Your task to perform on an android device: see tabs open on other devices in the chrome app Image 0: 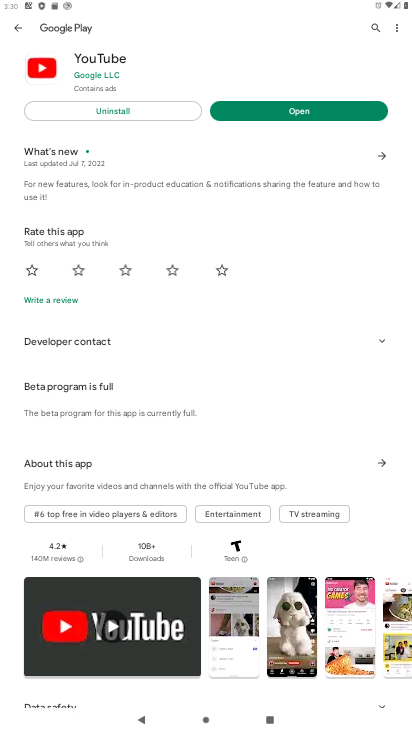
Step 0: press home button
Your task to perform on an android device: see tabs open on other devices in the chrome app Image 1: 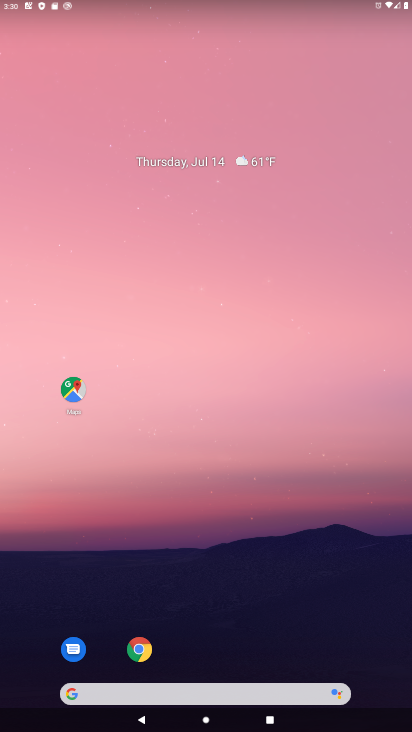
Step 1: drag from (205, 662) to (176, 129)
Your task to perform on an android device: see tabs open on other devices in the chrome app Image 2: 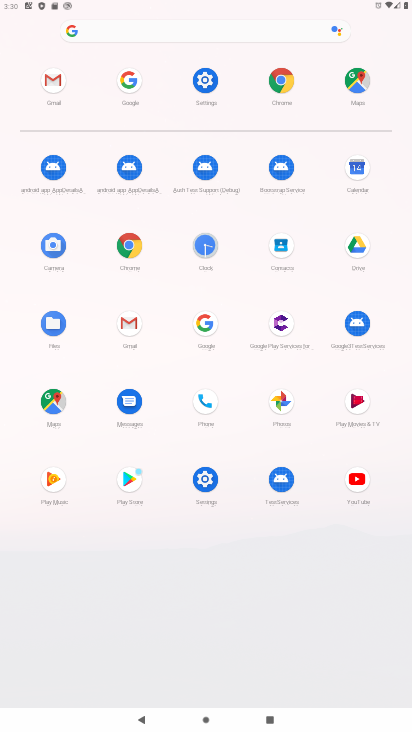
Step 2: click (123, 247)
Your task to perform on an android device: see tabs open on other devices in the chrome app Image 3: 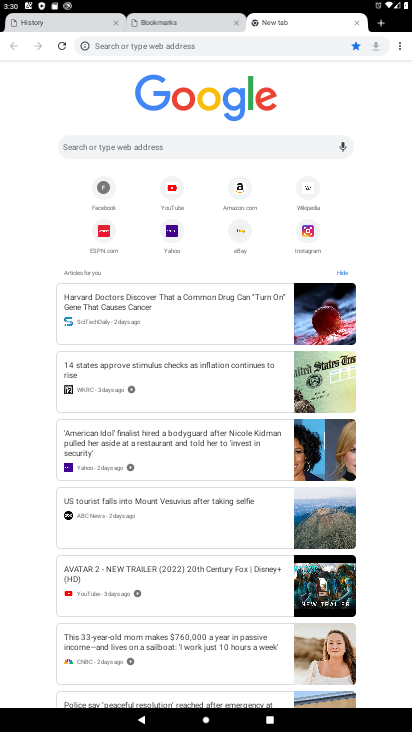
Step 3: click (383, 21)
Your task to perform on an android device: see tabs open on other devices in the chrome app Image 4: 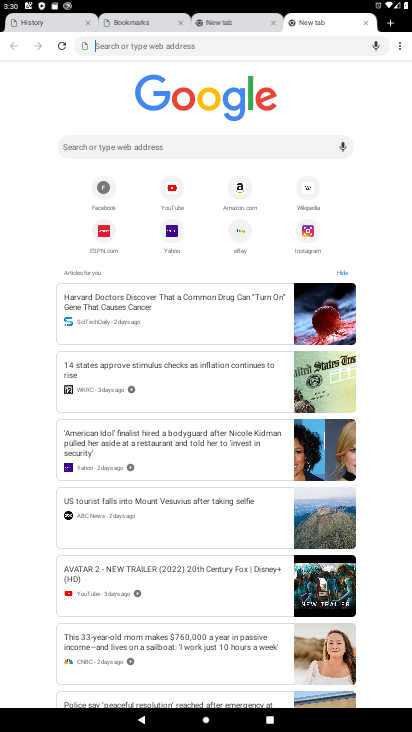
Step 4: task complete